Your task to perform on an android device: check the backup settings in the google photos Image 0: 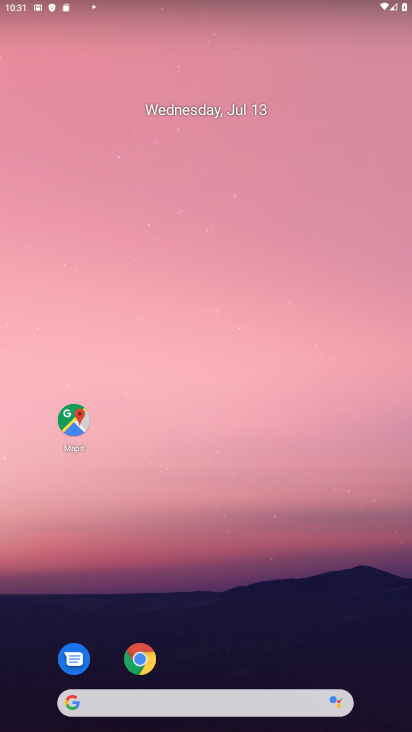
Step 0: drag from (199, 568) to (228, 197)
Your task to perform on an android device: check the backup settings in the google photos Image 1: 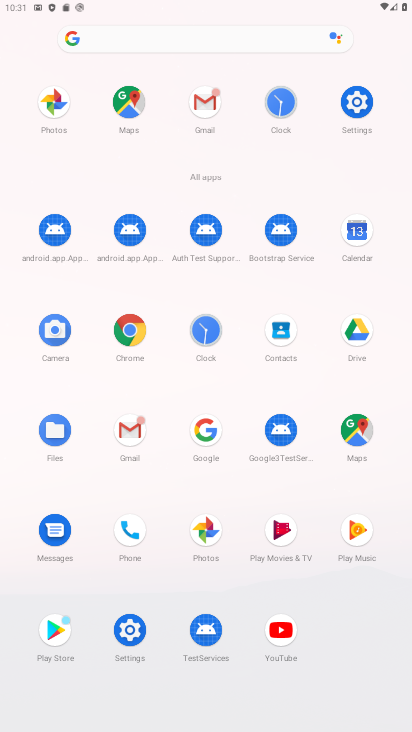
Step 1: click (208, 535)
Your task to perform on an android device: check the backup settings in the google photos Image 2: 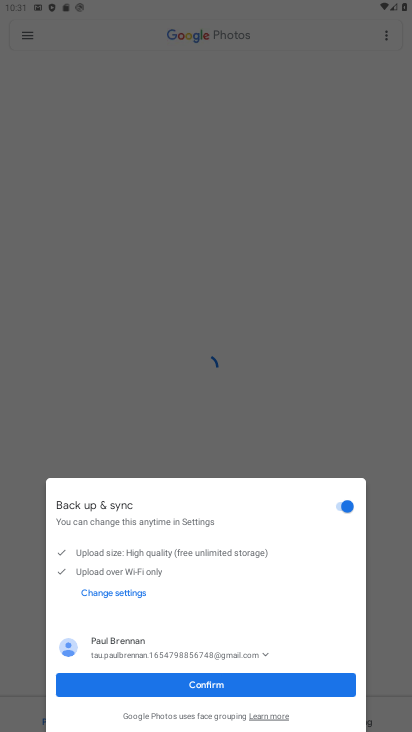
Step 2: click (210, 678)
Your task to perform on an android device: check the backup settings in the google photos Image 3: 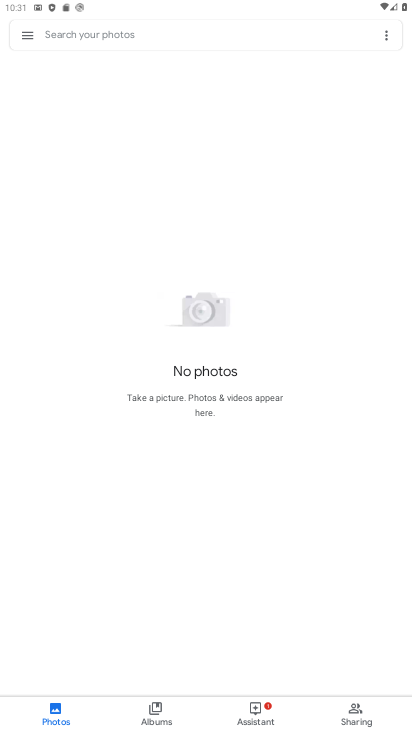
Step 3: click (34, 40)
Your task to perform on an android device: check the backup settings in the google photos Image 4: 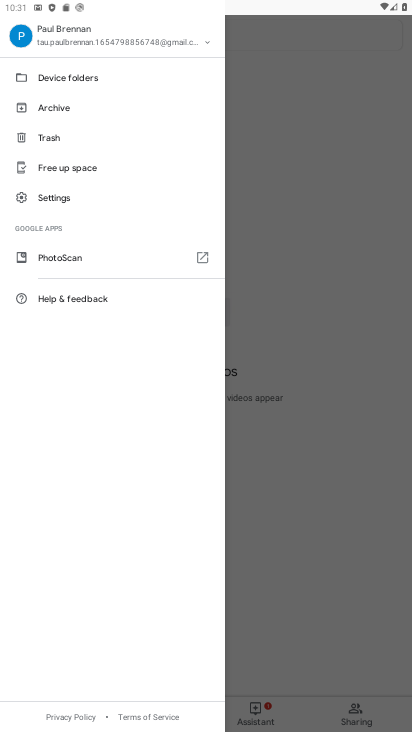
Step 4: click (89, 200)
Your task to perform on an android device: check the backup settings in the google photos Image 5: 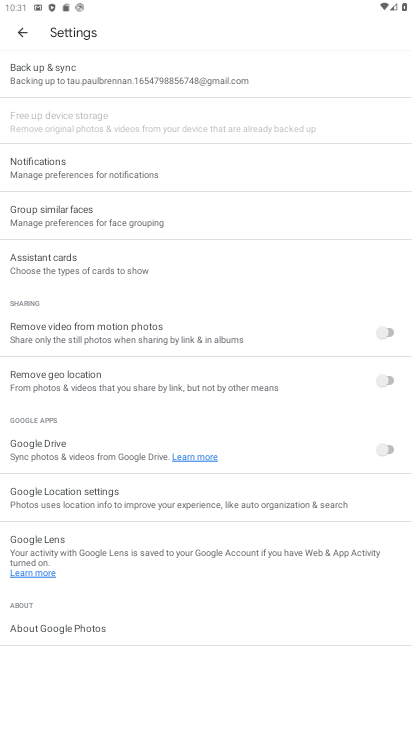
Step 5: click (100, 86)
Your task to perform on an android device: check the backup settings in the google photos Image 6: 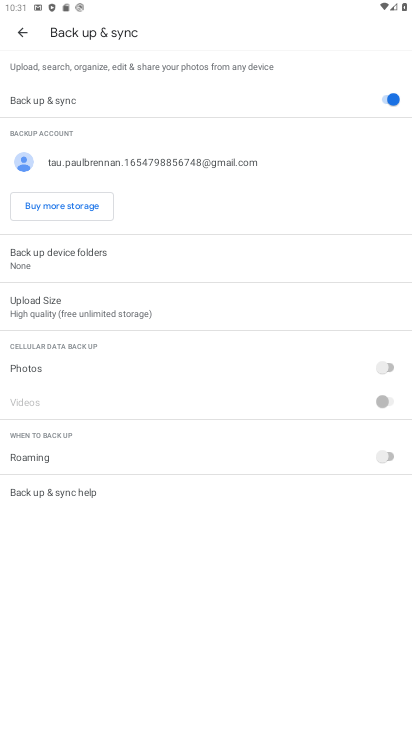
Step 6: task complete